Your task to perform on an android device: turn on the 12-hour format for clock Image 0: 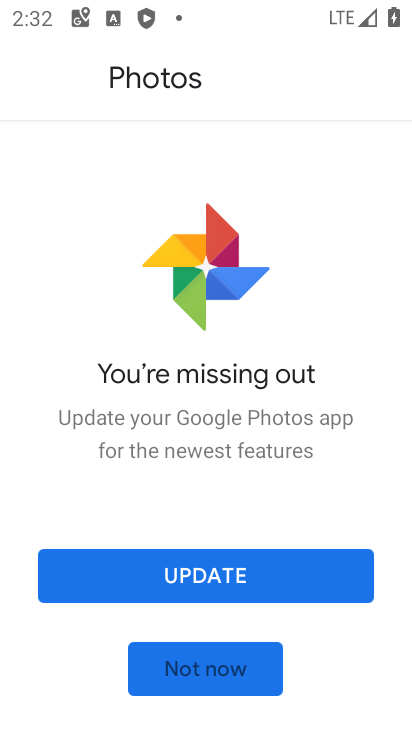
Step 0: press home button
Your task to perform on an android device: turn on the 12-hour format for clock Image 1: 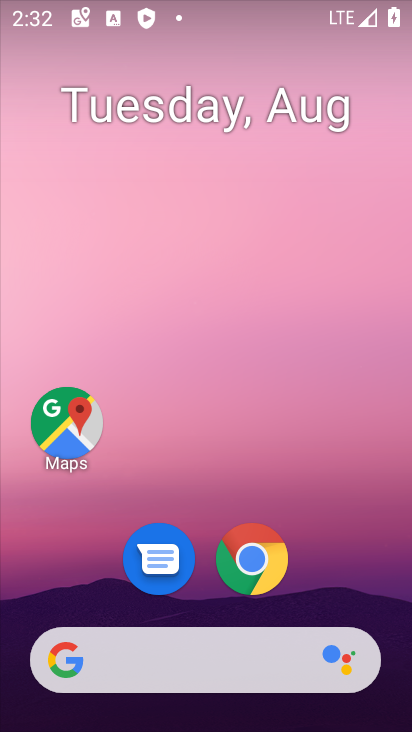
Step 1: drag from (200, 507) to (179, 178)
Your task to perform on an android device: turn on the 12-hour format for clock Image 2: 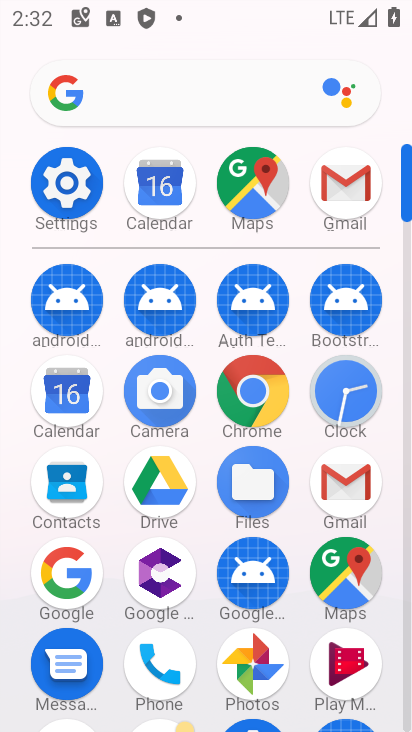
Step 2: click (354, 378)
Your task to perform on an android device: turn on the 12-hour format for clock Image 3: 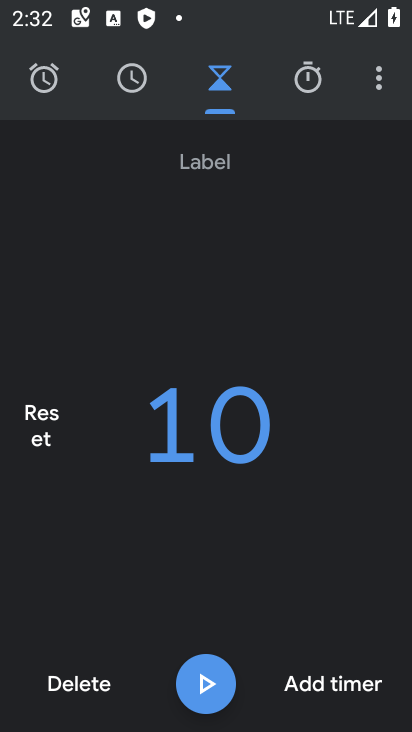
Step 3: click (374, 80)
Your task to perform on an android device: turn on the 12-hour format for clock Image 4: 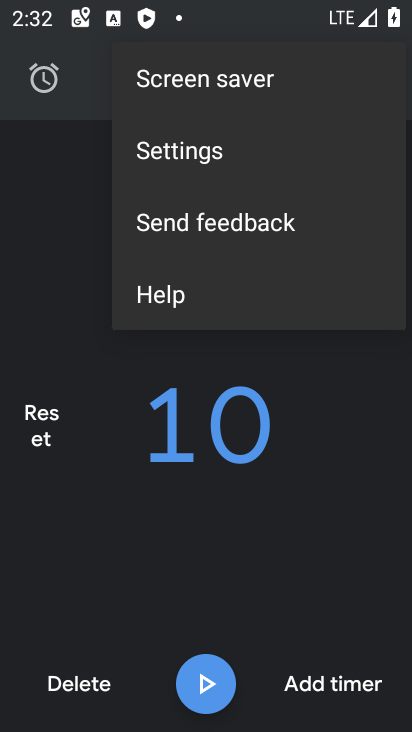
Step 4: click (262, 139)
Your task to perform on an android device: turn on the 12-hour format for clock Image 5: 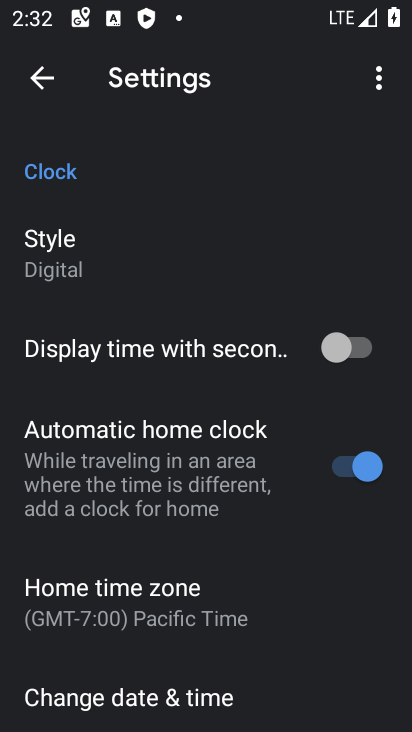
Step 5: drag from (222, 582) to (211, 199)
Your task to perform on an android device: turn on the 12-hour format for clock Image 6: 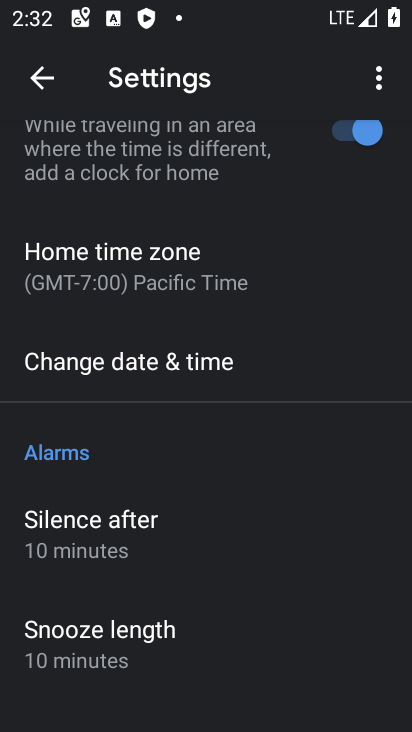
Step 6: click (268, 353)
Your task to perform on an android device: turn on the 12-hour format for clock Image 7: 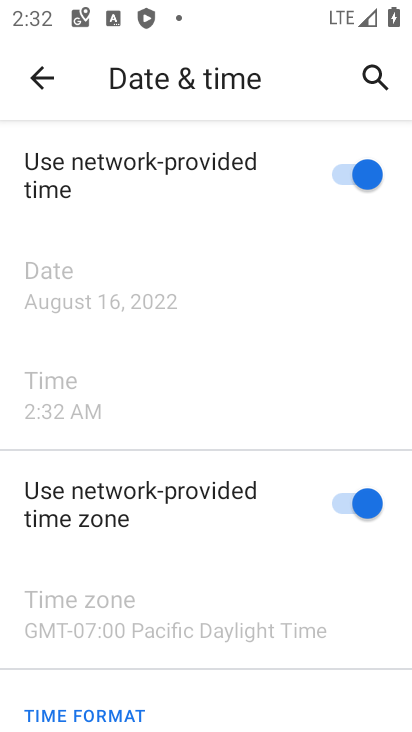
Step 7: task complete